Your task to perform on an android device: allow notifications from all sites in the chrome app Image 0: 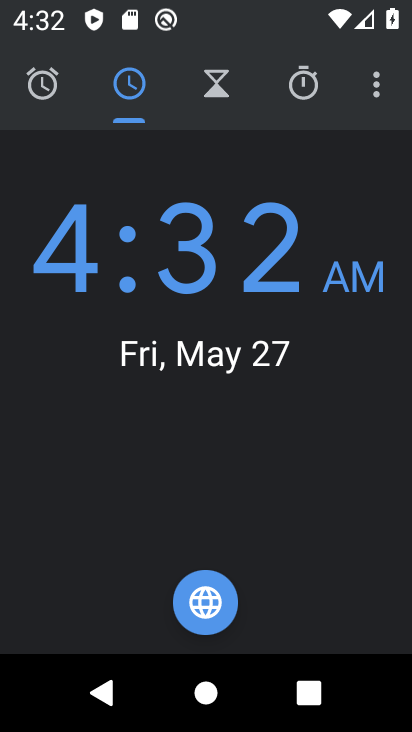
Step 0: press home button
Your task to perform on an android device: allow notifications from all sites in the chrome app Image 1: 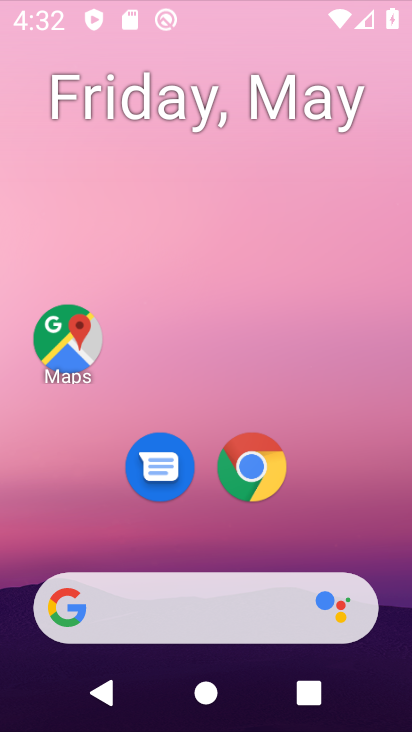
Step 1: press home button
Your task to perform on an android device: allow notifications from all sites in the chrome app Image 2: 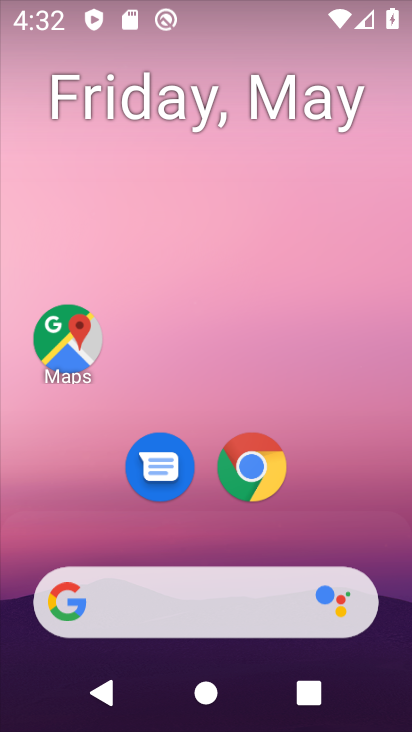
Step 2: click (258, 486)
Your task to perform on an android device: allow notifications from all sites in the chrome app Image 3: 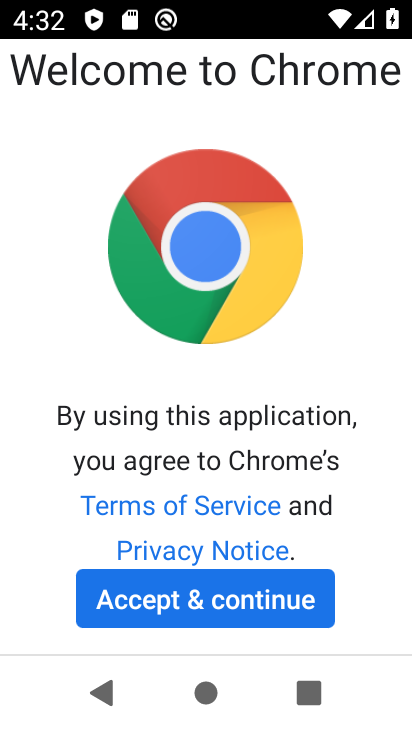
Step 3: click (242, 601)
Your task to perform on an android device: allow notifications from all sites in the chrome app Image 4: 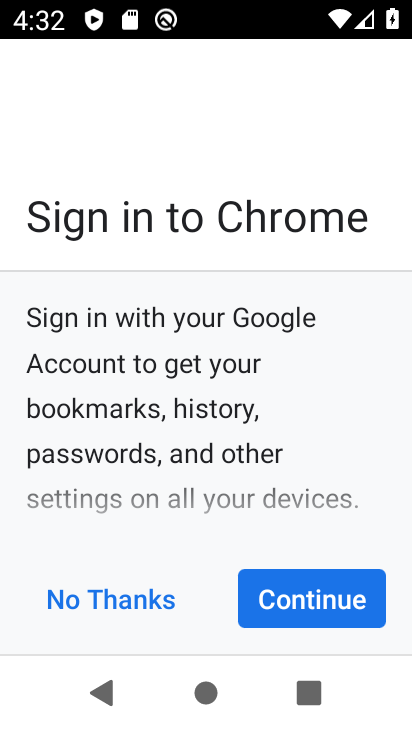
Step 4: click (283, 599)
Your task to perform on an android device: allow notifications from all sites in the chrome app Image 5: 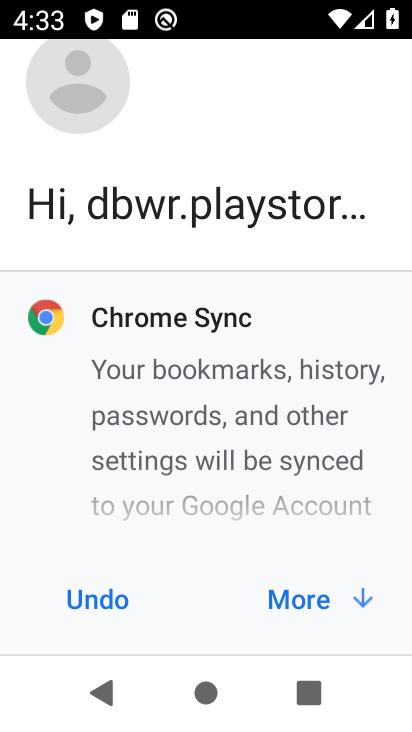
Step 5: click (285, 596)
Your task to perform on an android device: allow notifications from all sites in the chrome app Image 6: 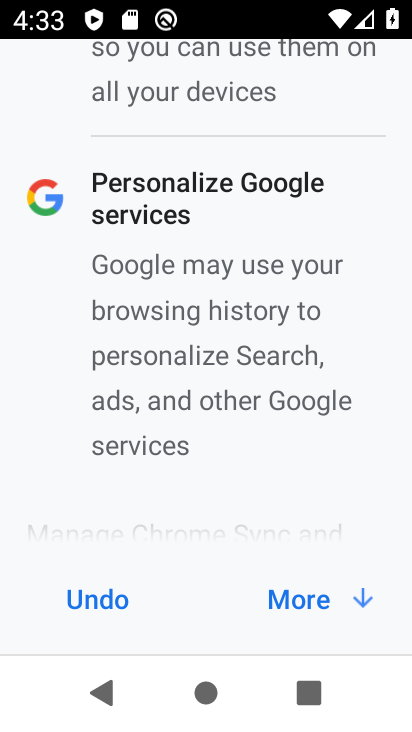
Step 6: click (285, 596)
Your task to perform on an android device: allow notifications from all sites in the chrome app Image 7: 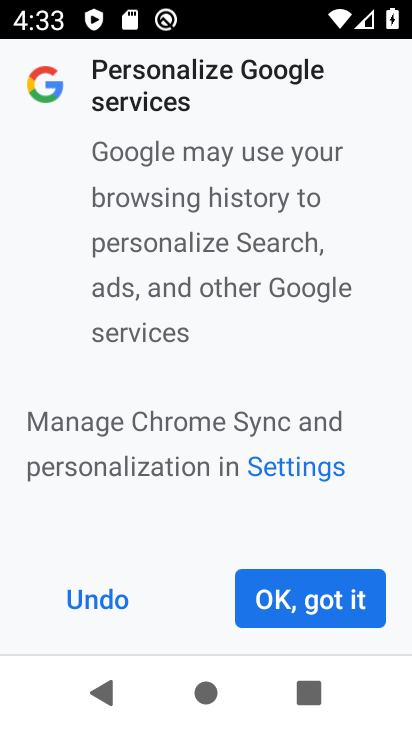
Step 7: click (285, 596)
Your task to perform on an android device: allow notifications from all sites in the chrome app Image 8: 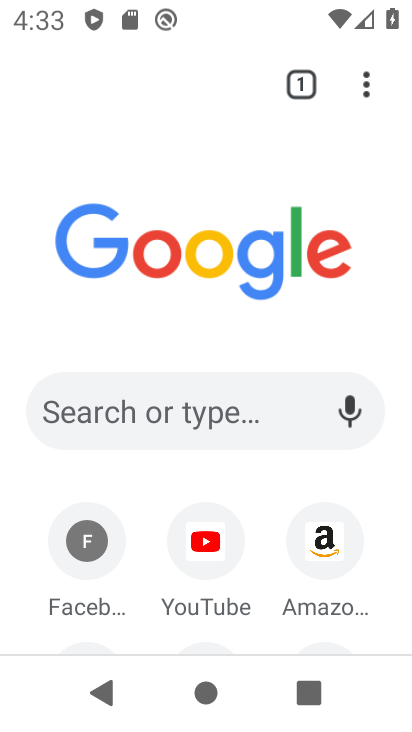
Step 8: click (365, 71)
Your task to perform on an android device: allow notifications from all sites in the chrome app Image 9: 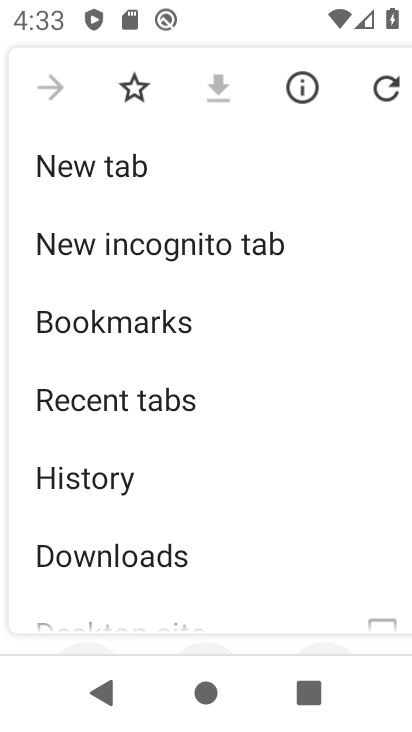
Step 9: drag from (222, 565) to (216, 235)
Your task to perform on an android device: allow notifications from all sites in the chrome app Image 10: 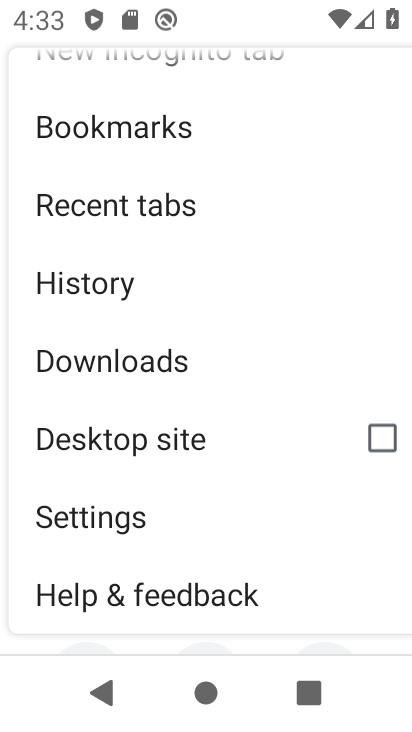
Step 10: click (162, 524)
Your task to perform on an android device: allow notifications from all sites in the chrome app Image 11: 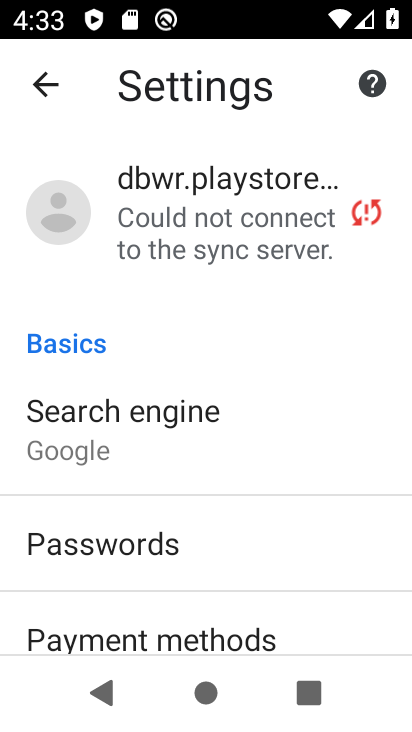
Step 11: drag from (231, 553) to (209, 215)
Your task to perform on an android device: allow notifications from all sites in the chrome app Image 12: 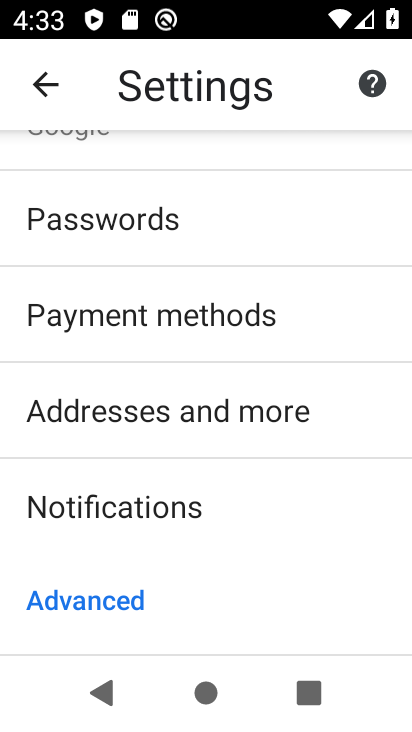
Step 12: click (186, 499)
Your task to perform on an android device: allow notifications from all sites in the chrome app Image 13: 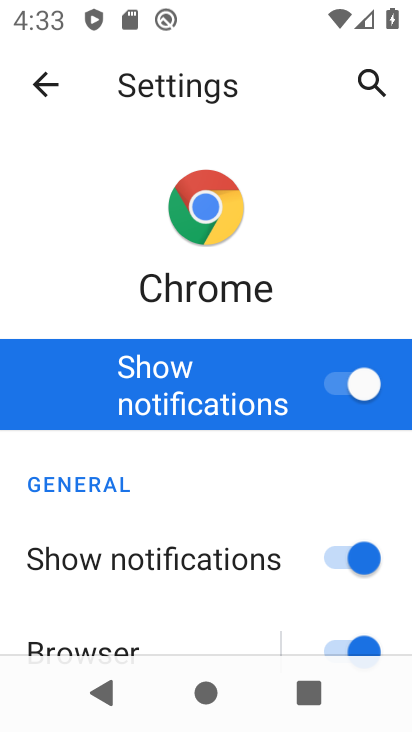
Step 13: task complete